Your task to perform on an android device: Open internet settings Image 0: 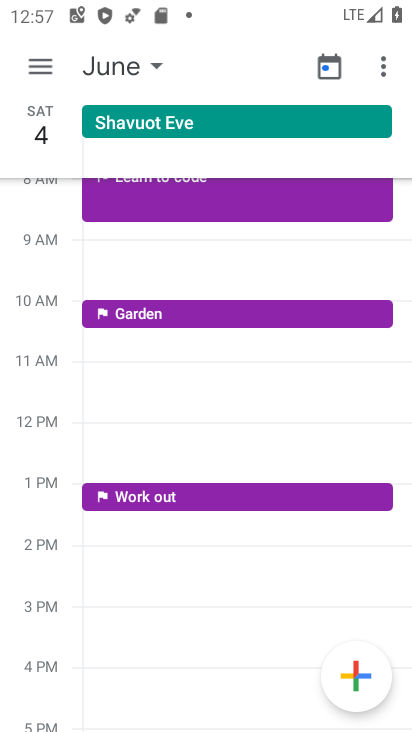
Step 0: press home button
Your task to perform on an android device: Open internet settings Image 1: 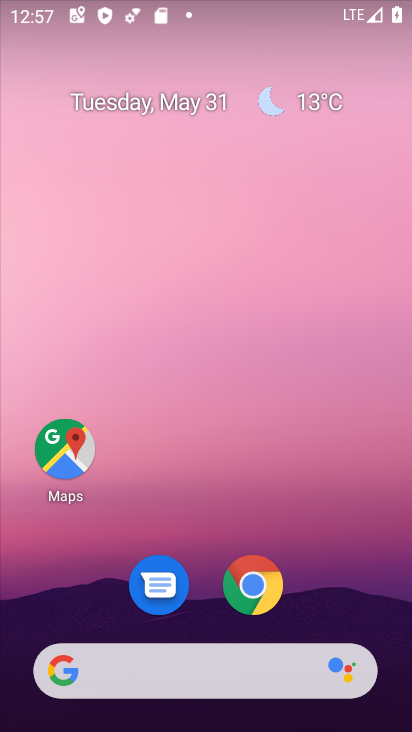
Step 1: drag from (222, 521) to (171, 26)
Your task to perform on an android device: Open internet settings Image 2: 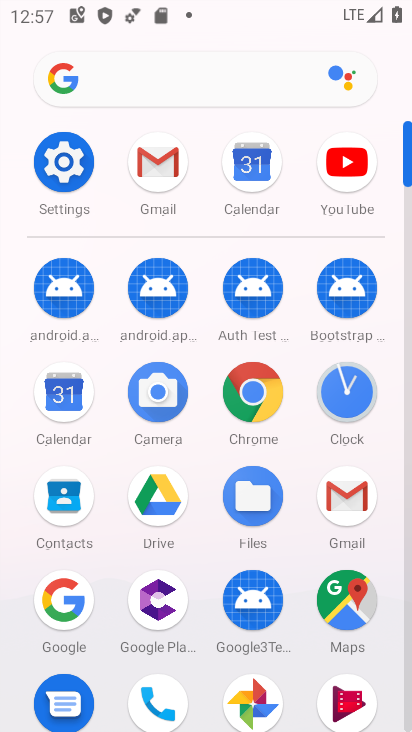
Step 2: click (62, 165)
Your task to perform on an android device: Open internet settings Image 3: 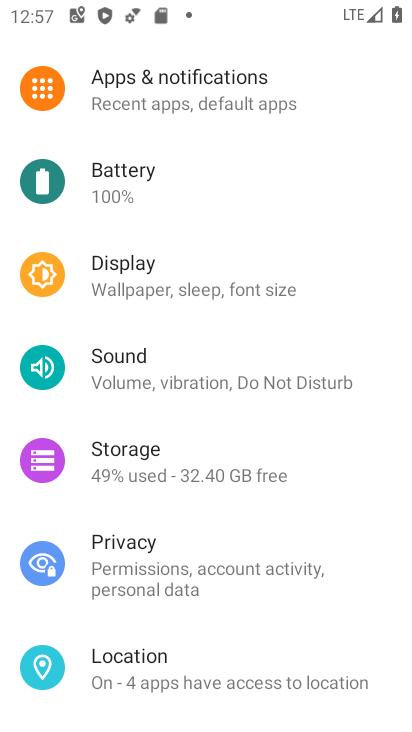
Step 3: drag from (234, 310) to (187, 612)
Your task to perform on an android device: Open internet settings Image 4: 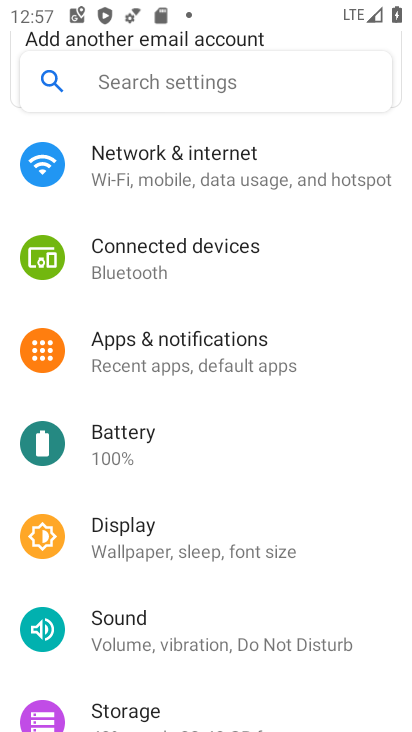
Step 4: click (200, 140)
Your task to perform on an android device: Open internet settings Image 5: 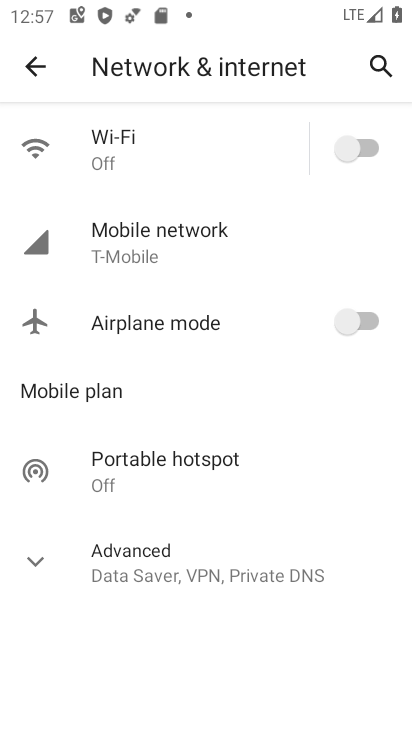
Step 5: task complete